Your task to perform on an android device: Open the calendar and show me this week's events Image 0: 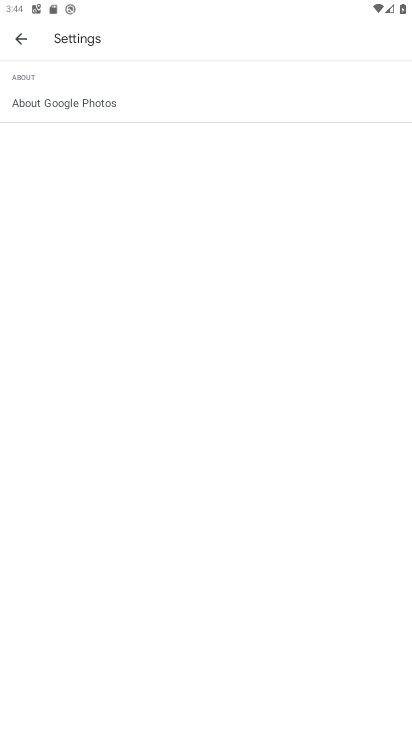
Step 0: press home button
Your task to perform on an android device: Open the calendar and show me this week's events Image 1: 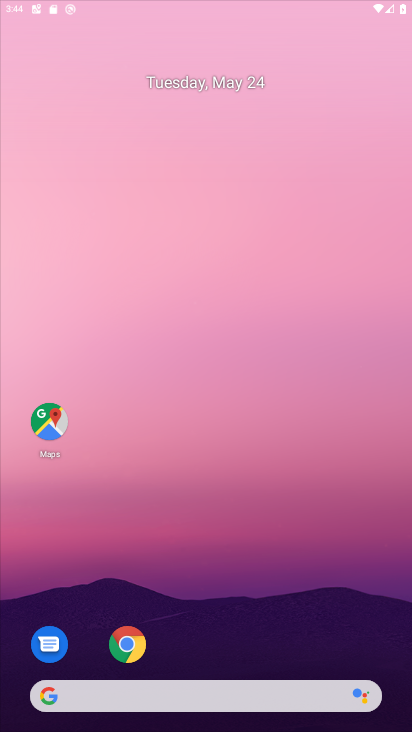
Step 1: press home button
Your task to perform on an android device: Open the calendar and show me this week's events Image 2: 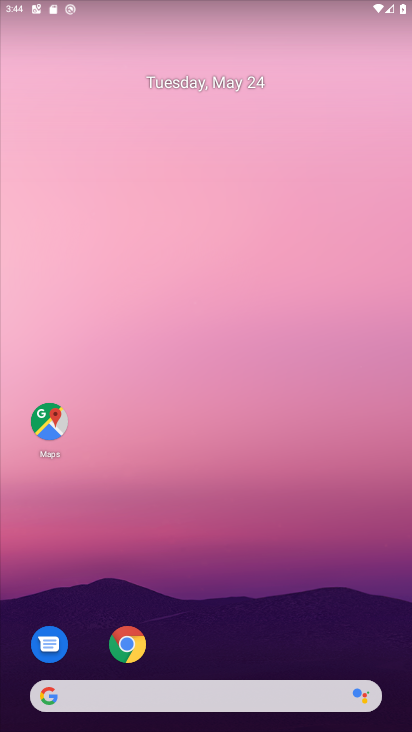
Step 2: drag from (321, 575) to (258, 254)
Your task to perform on an android device: Open the calendar and show me this week's events Image 3: 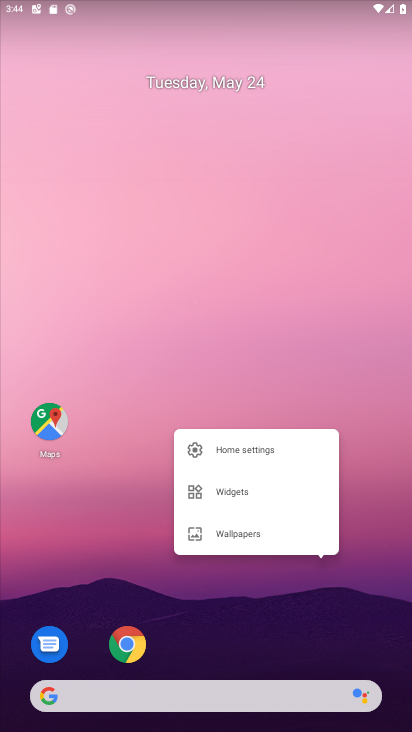
Step 3: click (258, 254)
Your task to perform on an android device: Open the calendar and show me this week's events Image 4: 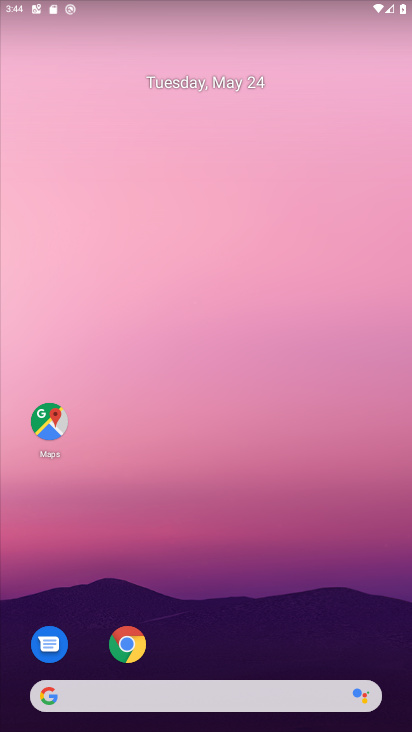
Step 4: drag from (245, 595) to (128, 256)
Your task to perform on an android device: Open the calendar and show me this week's events Image 5: 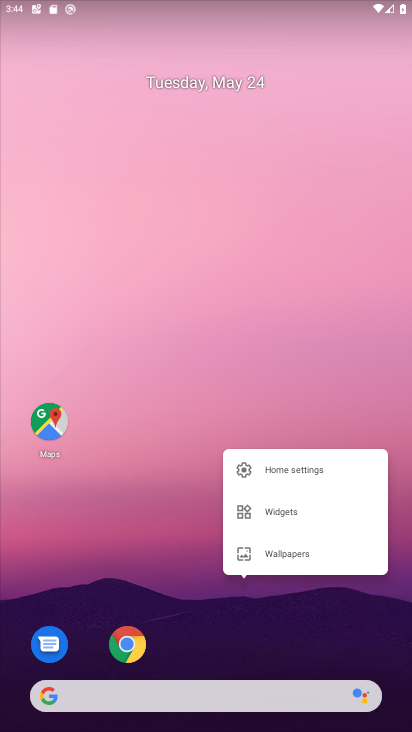
Step 5: click (128, 256)
Your task to perform on an android device: Open the calendar and show me this week's events Image 6: 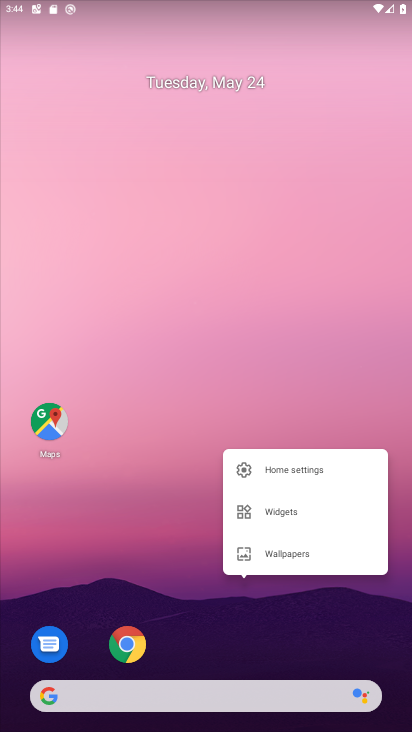
Step 6: click (128, 256)
Your task to perform on an android device: Open the calendar and show me this week's events Image 7: 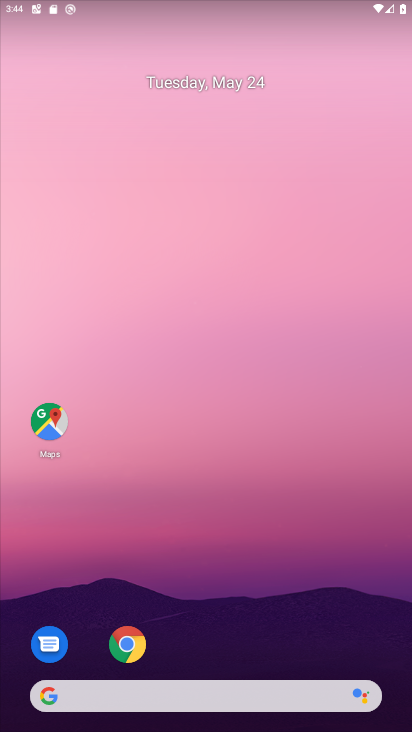
Step 7: drag from (237, 576) to (151, 166)
Your task to perform on an android device: Open the calendar and show me this week's events Image 8: 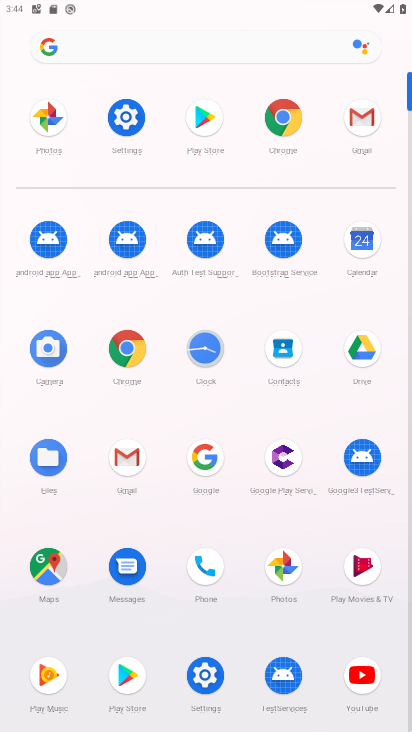
Step 8: click (342, 262)
Your task to perform on an android device: Open the calendar and show me this week's events Image 9: 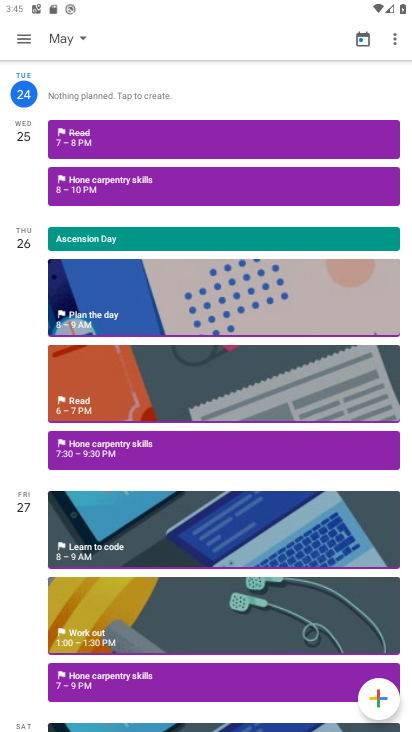
Step 9: task complete